Your task to perform on an android device: find snoozed emails in the gmail app Image 0: 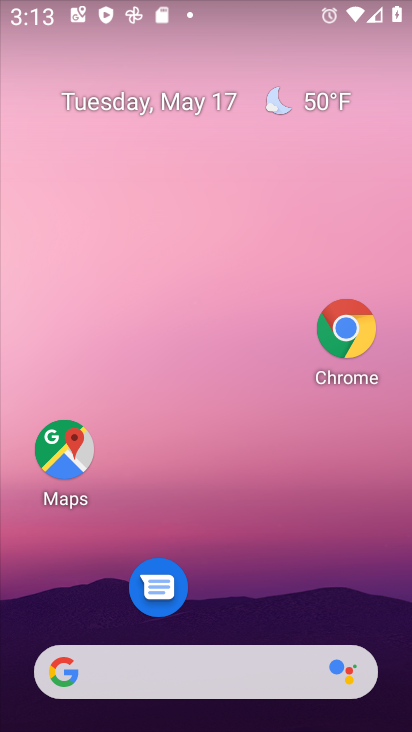
Step 0: drag from (279, 604) to (273, 30)
Your task to perform on an android device: find snoozed emails in the gmail app Image 1: 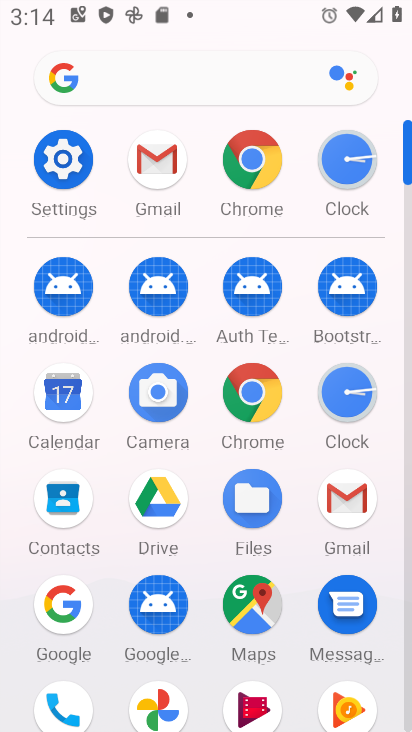
Step 1: click (172, 197)
Your task to perform on an android device: find snoozed emails in the gmail app Image 2: 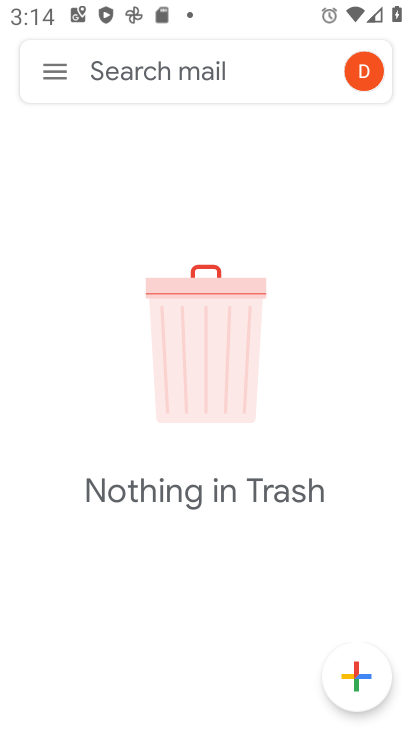
Step 2: press home button
Your task to perform on an android device: find snoozed emails in the gmail app Image 3: 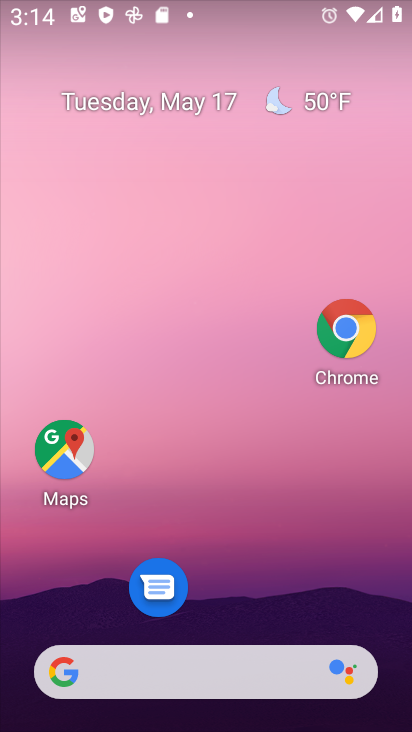
Step 3: drag from (258, 618) to (257, 72)
Your task to perform on an android device: find snoozed emails in the gmail app Image 4: 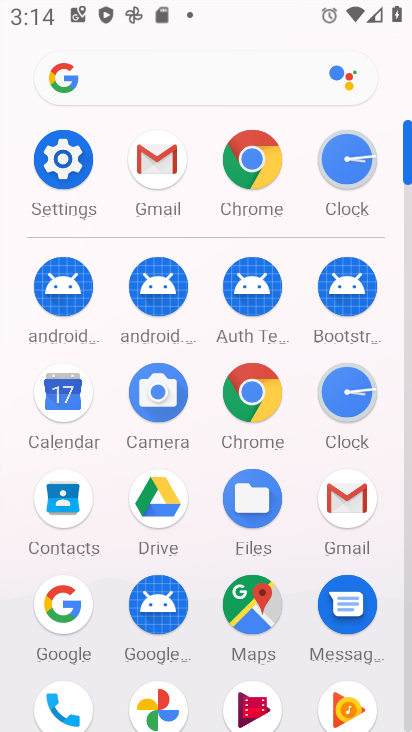
Step 4: click (165, 169)
Your task to perform on an android device: find snoozed emails in the gmail app Image 5: 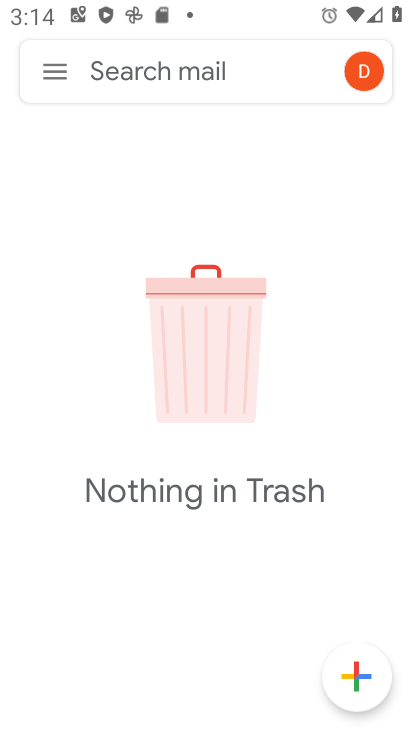
Step 5: click (35, 71)
Your task to perform on an android device: find snoozed emails in the gmail app Image 6: 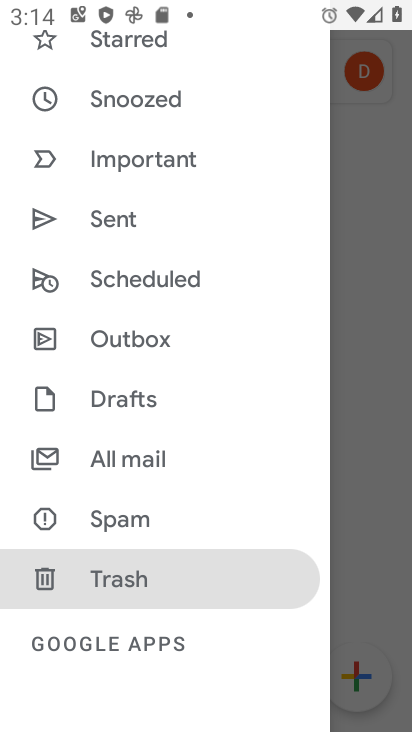
Step 6: drag from (143, 334) to (129, 551)
Your task to perform on an android device: find snoozed emails in the gmail app Image 7: 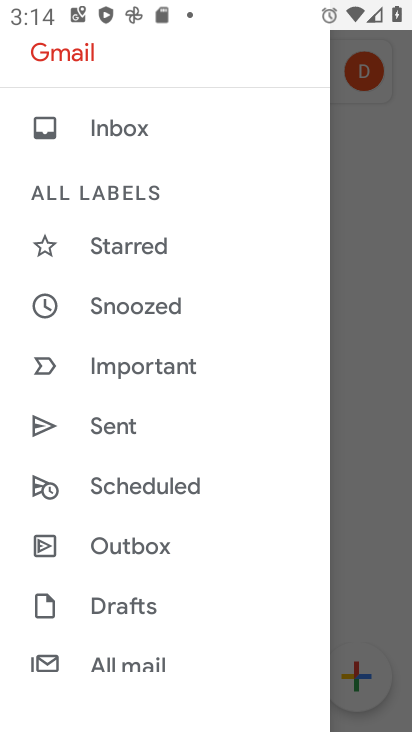
Step 7: click (164, 300)
Your task to perform on an android device: find snoozed emails in the gmail app Image 8: 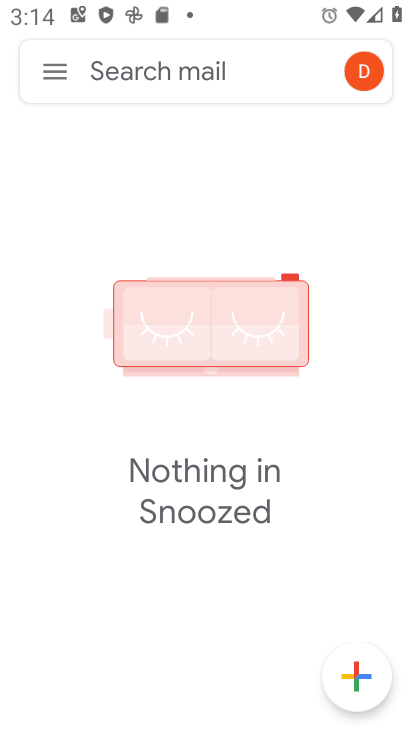
Step 8: task complete